Your task to perform on an android device: turn vacation reply on in the gmail app Image 0: 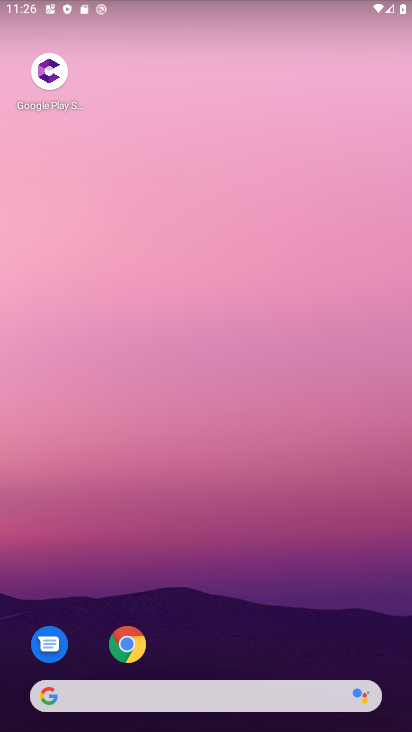
Step 0: drag from (248, 684) to (189, 201)
Your task to perform on an android device: turn vacation reply on in the gmail app Image 1: 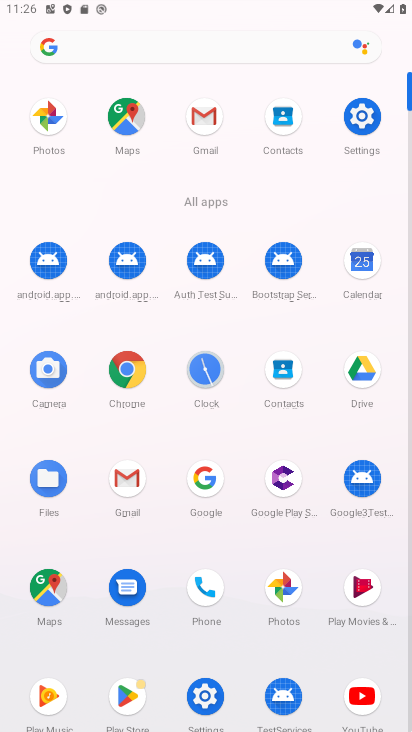
Step 1: click (126, 485)
Your task to perform on an android device: turn vacation reply on in the gmail app Image 2: 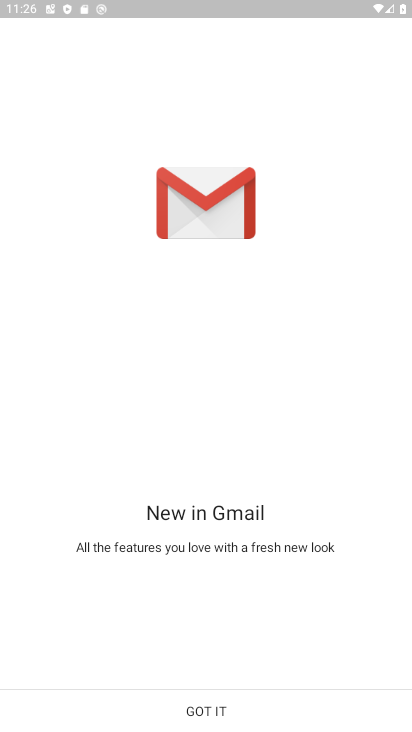
Step 2: click (195, 701)
Your task to perform on an android device: turn vacation reply on in the gmail app Image 3: 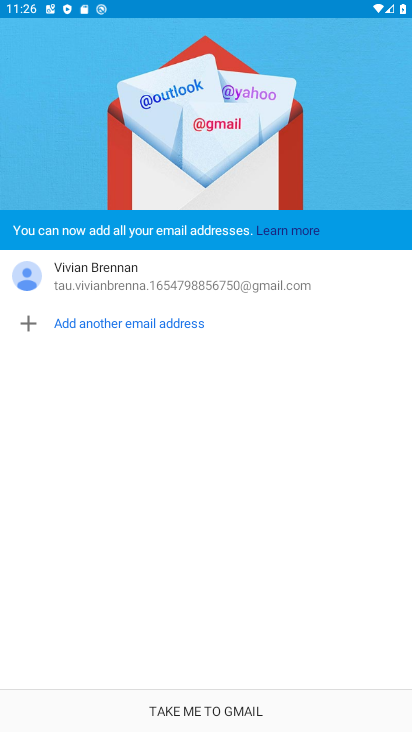
Step 3: click (184, 705)
Your task to perform on an android device: turn vacation reply on in the gmail app Image 4: 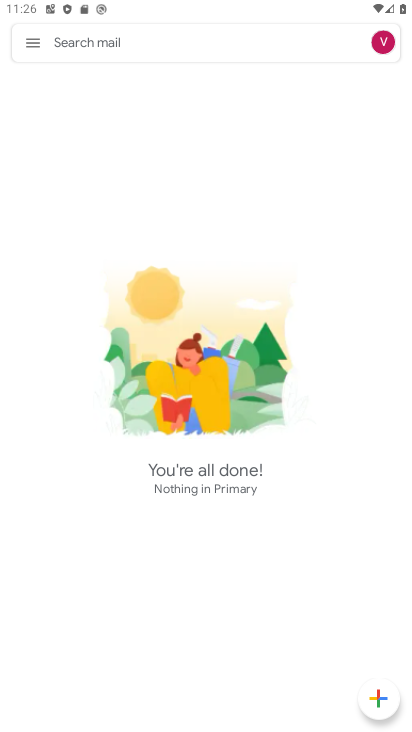
Step 4: click (31, 45)
Your task to perform on an android device: turn vacation reply on in the gmail app Image 5: 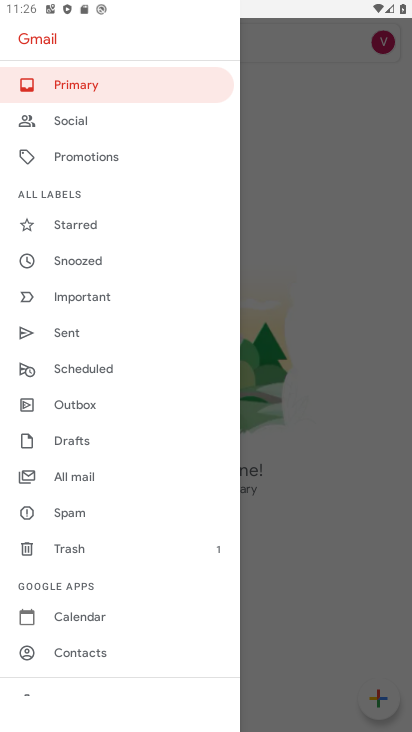
Step 5: drag from (81, 627) to (85, 254)
Your task to perform on an android device: turn vacation reply on in the gmail app Image 6: 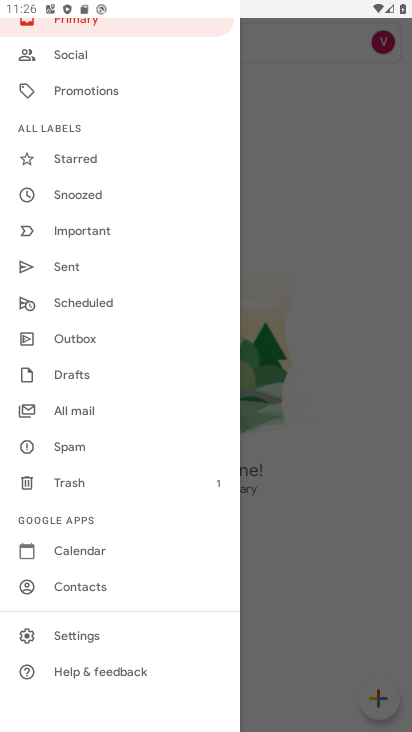
Step 6: click (66, 633)
Your task to perform on an android device: turn vacation reply on in the gmail app Image 7: 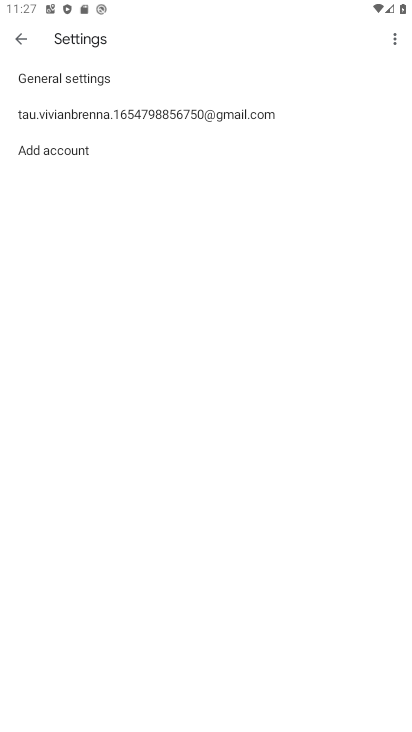
Step 7: click (208, 118)
Your task to perform on an android device: turn vacation reply on in the gmail app Image 8: 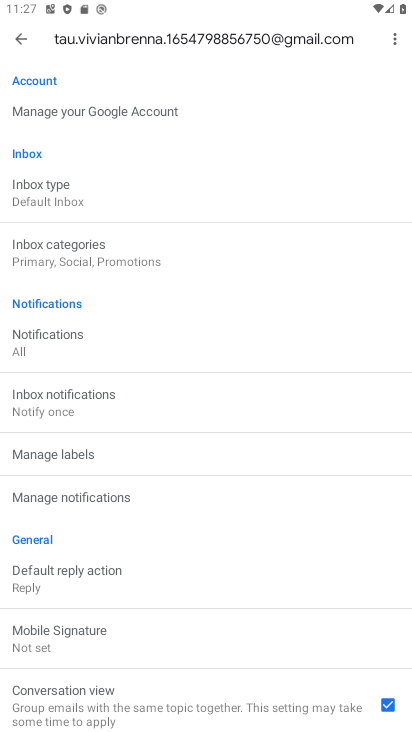
Step 8: drag from (153, 588) to (96, 221)
Your task to perform on an android device: turn vacation reply on in the gmail app Image 9: 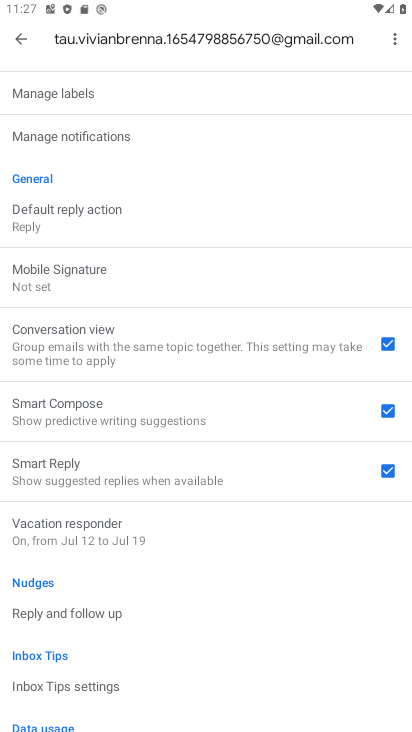
Step 9: click (53, 519)
Your task to perform on an android device: turn vacation reply on in the gmail app Image 10: 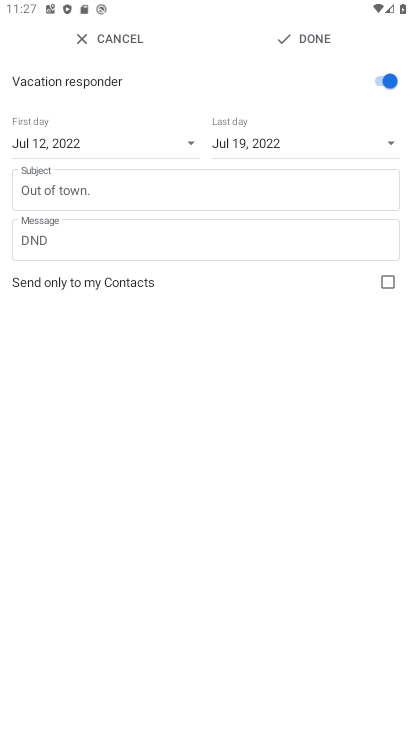
Step 10: task complete